Your task to perform on an android device: Go to location settings Image 0: 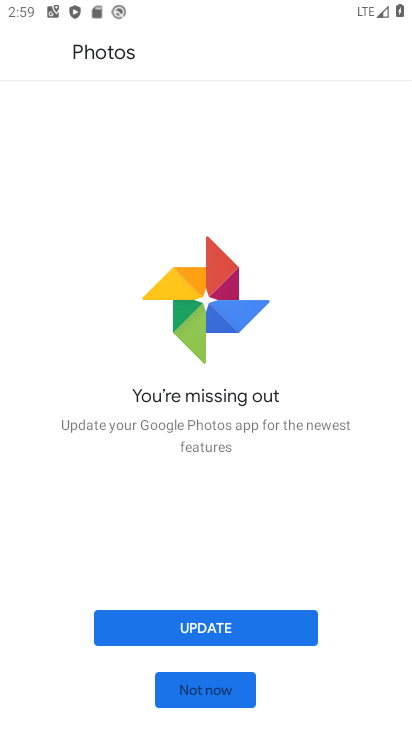
Step 0: press home button
Your task to perform on an android device: Go to location settings Image 1: 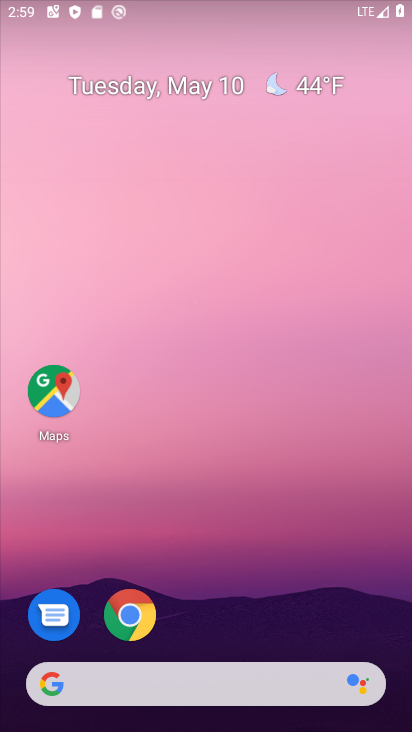
Step 1: drag from (304, 604) to (273, 23)
Your task to perform on an android device: Go to location settings Image 2: 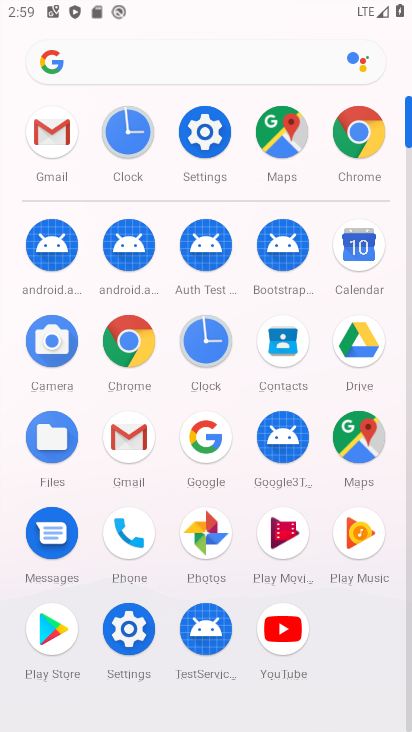
Step 2: click (201, 188)
Your task to perform on an android device: Go to location settings Image 3: 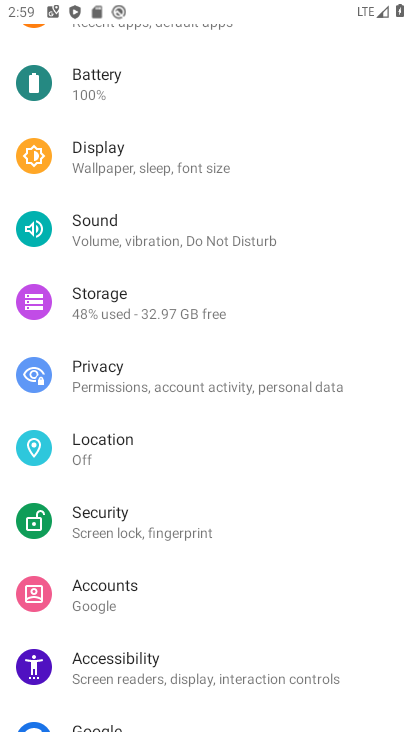
Step 3: click (140, 442)
Your task to perform on an android device: Go to location settings Image 4: 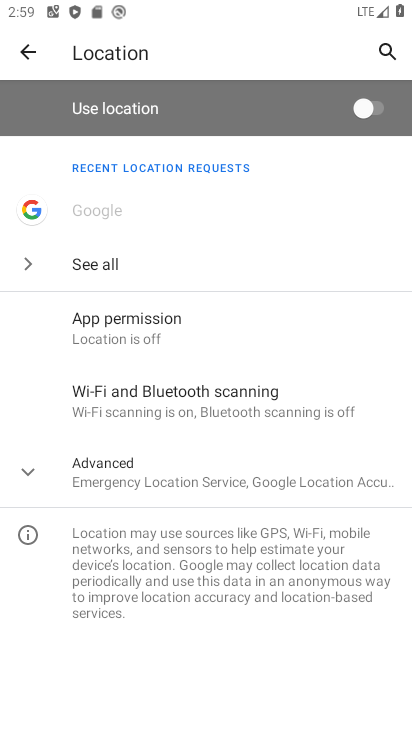
Step 4: task complete